Your task to perform on an android device: Open Chrome and go to the settings page Image 0: 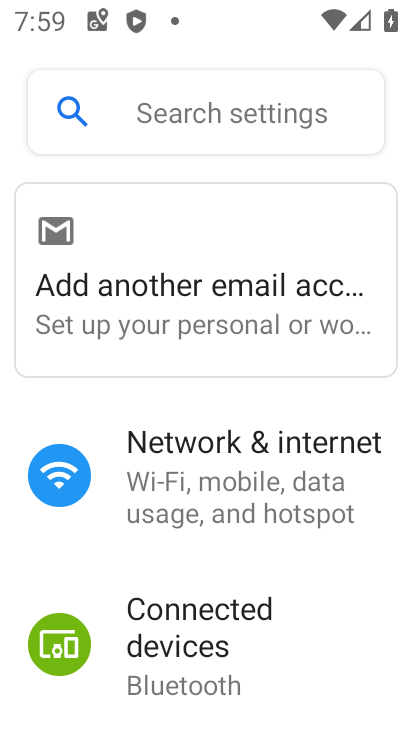
Step 0: press home button
Your task to perform on an android device: Open Chrome and go to the settings page Image 1: 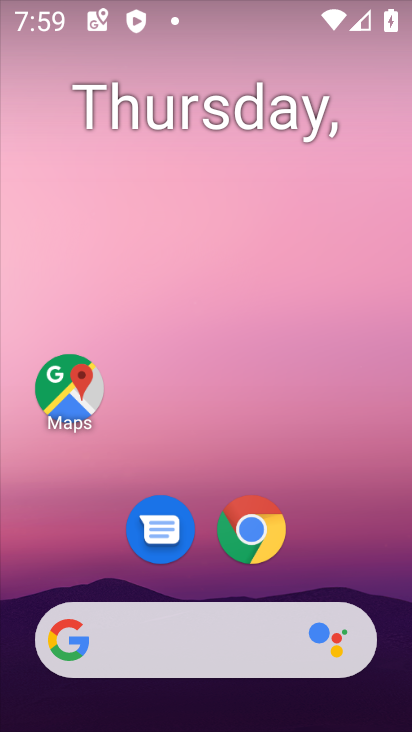
Step 1: click (245, 560)
Your task to perform on an android device: Open Chrome and go to the settings page Image 2: 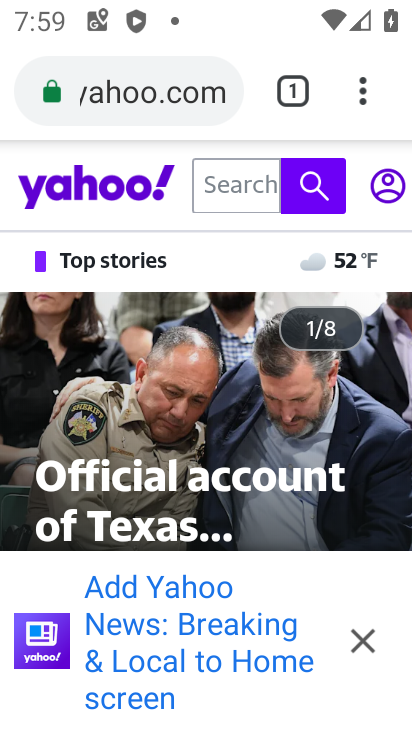
Step 2: click (364, 100)
Your task to perform on an android device: Open Chrome and go to the settings page Image 3: 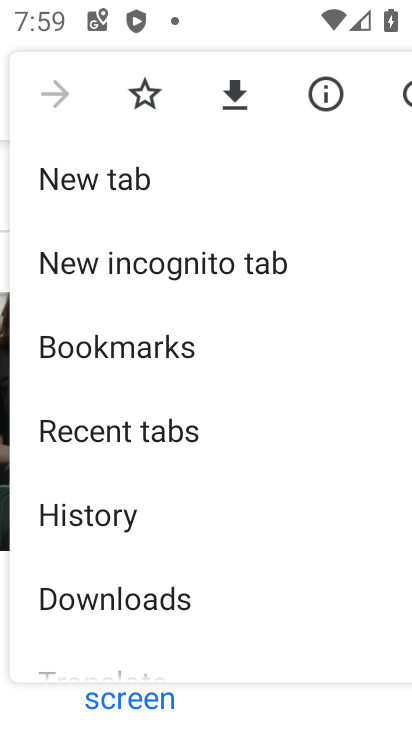
Step 3: drag from (104, 612) to (78, 211)
Your task to perform on an android device: Open Chrome and go to the settings page Image 4: 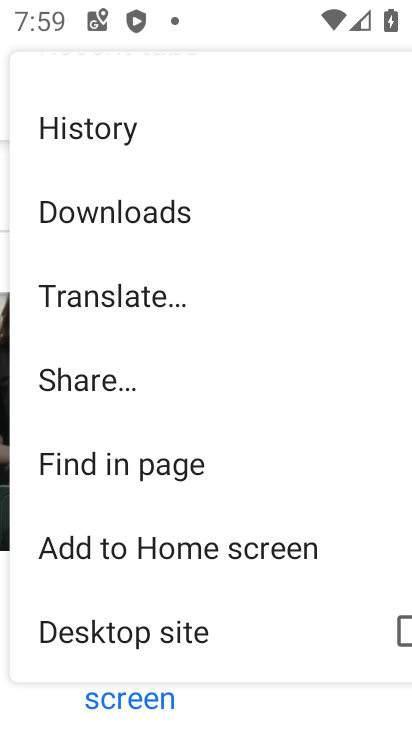
Step 4: drag from (111, 627) to (104, 226)
Your task to perform on an android device: Open Chrome and go to the settings page Image 5: 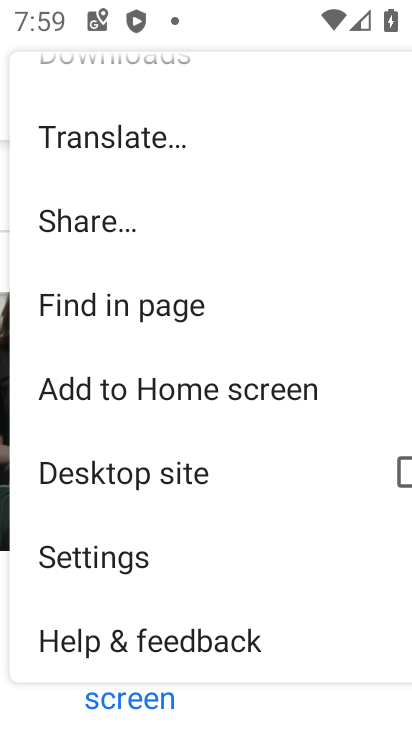
Step 5: click (100, 551)
Your task to perform on an android device: Open Chrome and go to the settings page Image 6: 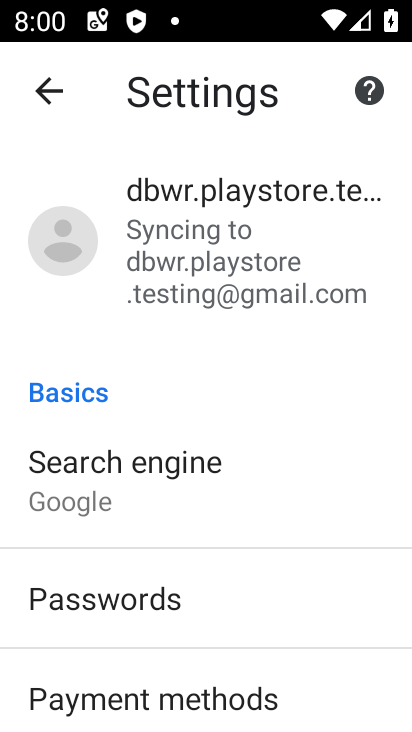
Step 6: task complete